Your task to perform on an android device: Show the shopping cart on ebay. Search for macbook pro on ebay, select the first entry, and add it to the cart. Image 0: 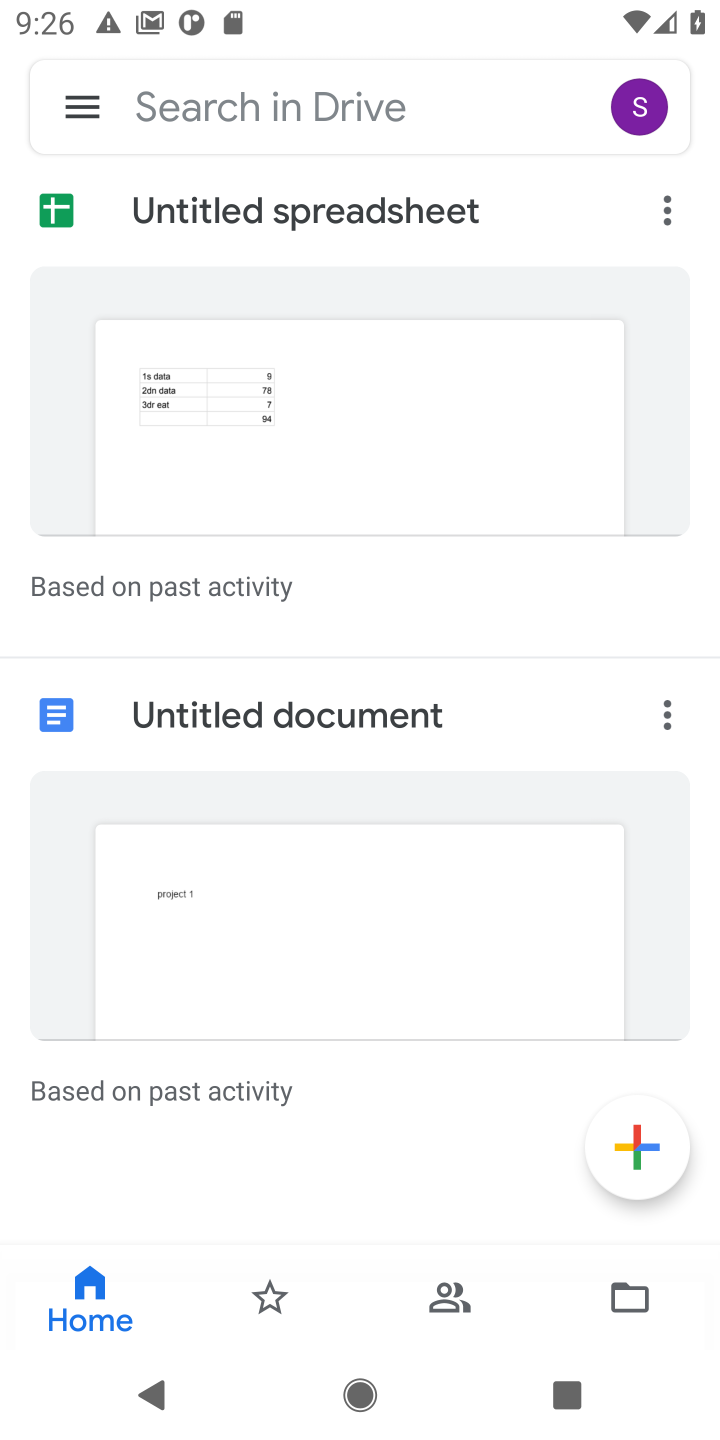
Step 0: press home button
Your task to perform on an android device: Show the shopping cart on ebay. Search for macbook pro on ebay, select the first entry, and add it to the cart. Image 1: 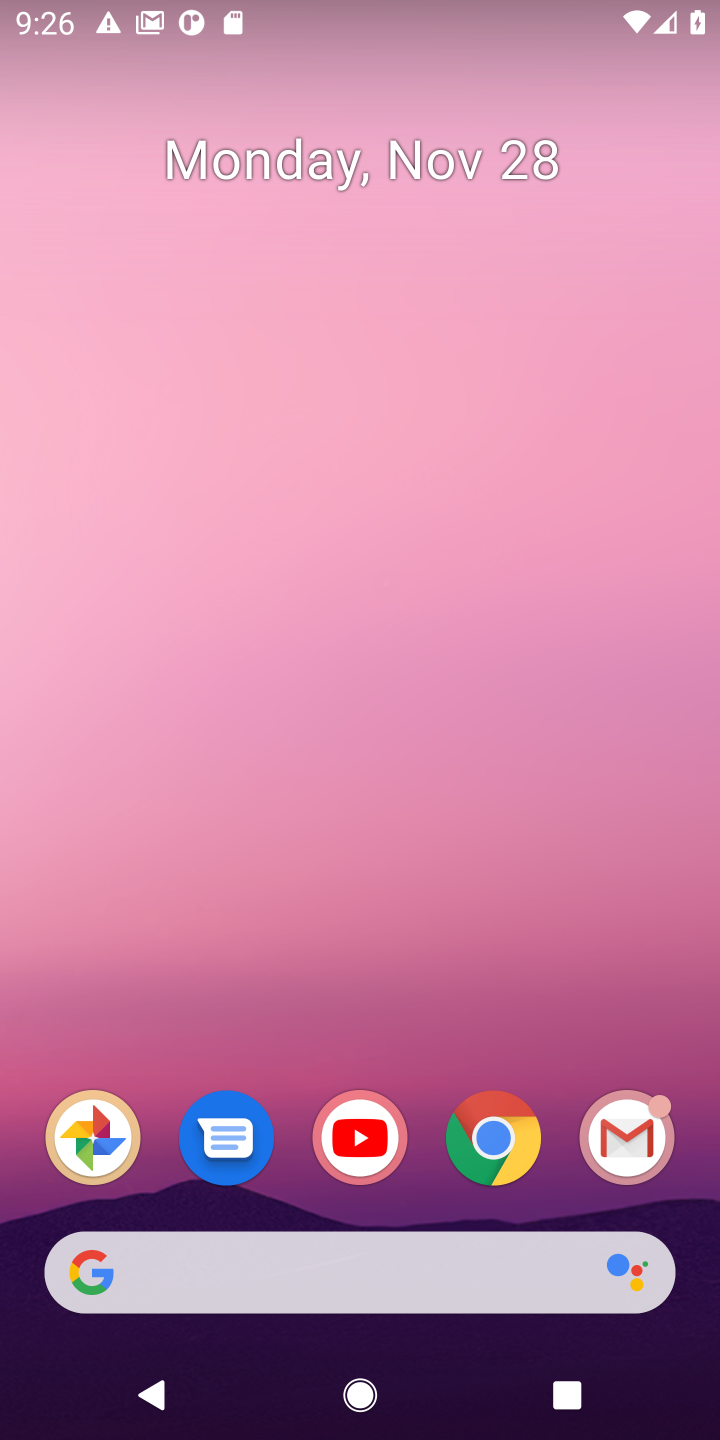
Step 1: click (489, 1139)
Your task to perform on an android device: Show the shopping cart on ebay. Search for macbook pro on ebay, select the first entry, and add it to the cart. Image 2: 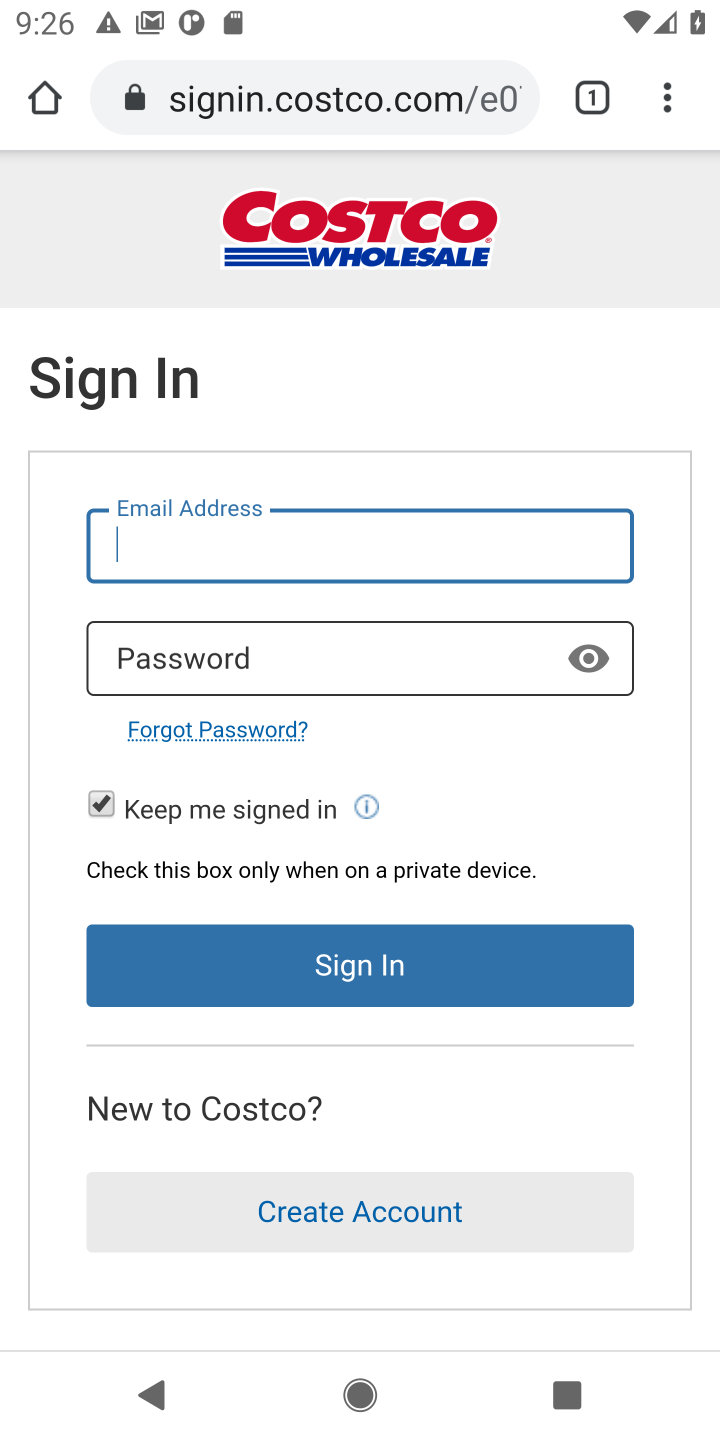
Step 2: click (290, 96)
Your task to perform on an android device: Show the shopping cart on ebay. Search for macbook pro on ebay, select the first entry, and add it to the cart. Image 3: 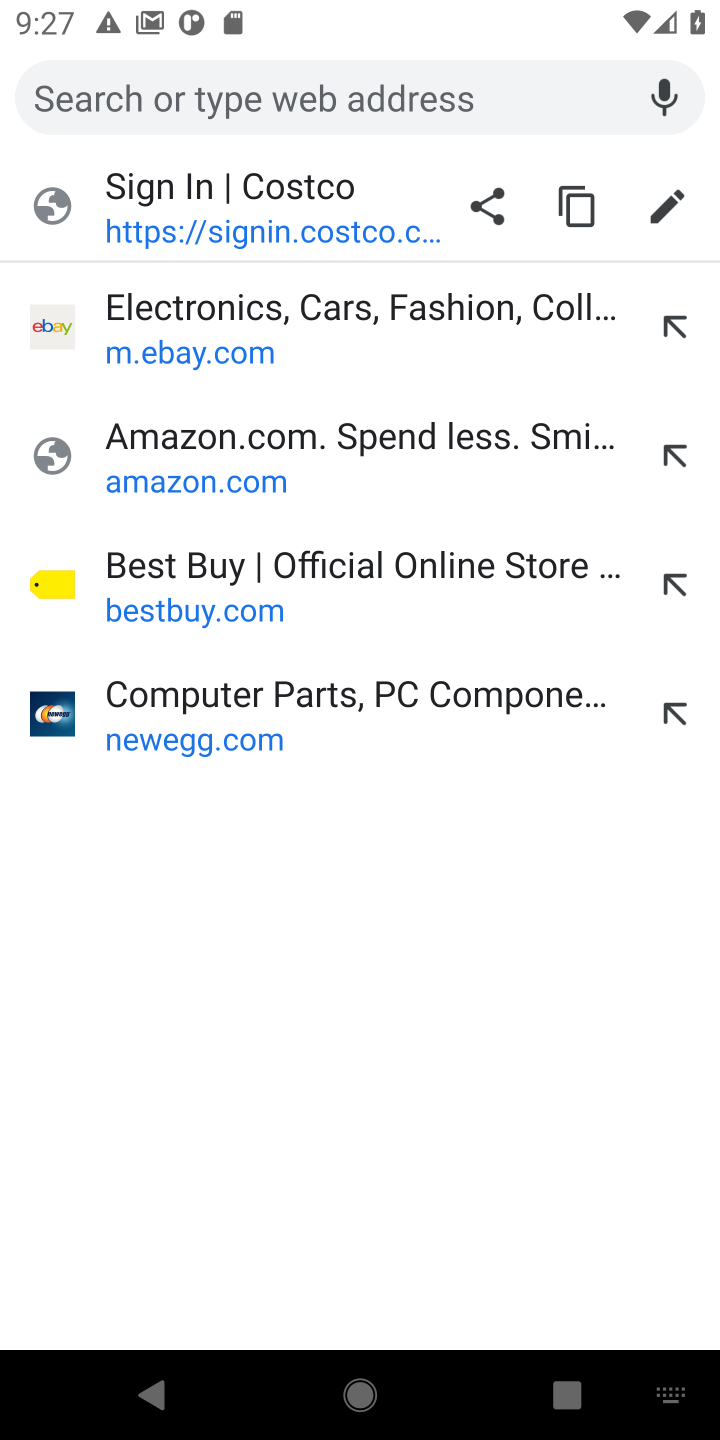
Step 3: click (208, 359)
Your task to perform on an android device: Show the shopping cart on ebay. Search for macbook pro on ebay, select the first entry, and add it to the cart. Image 4: 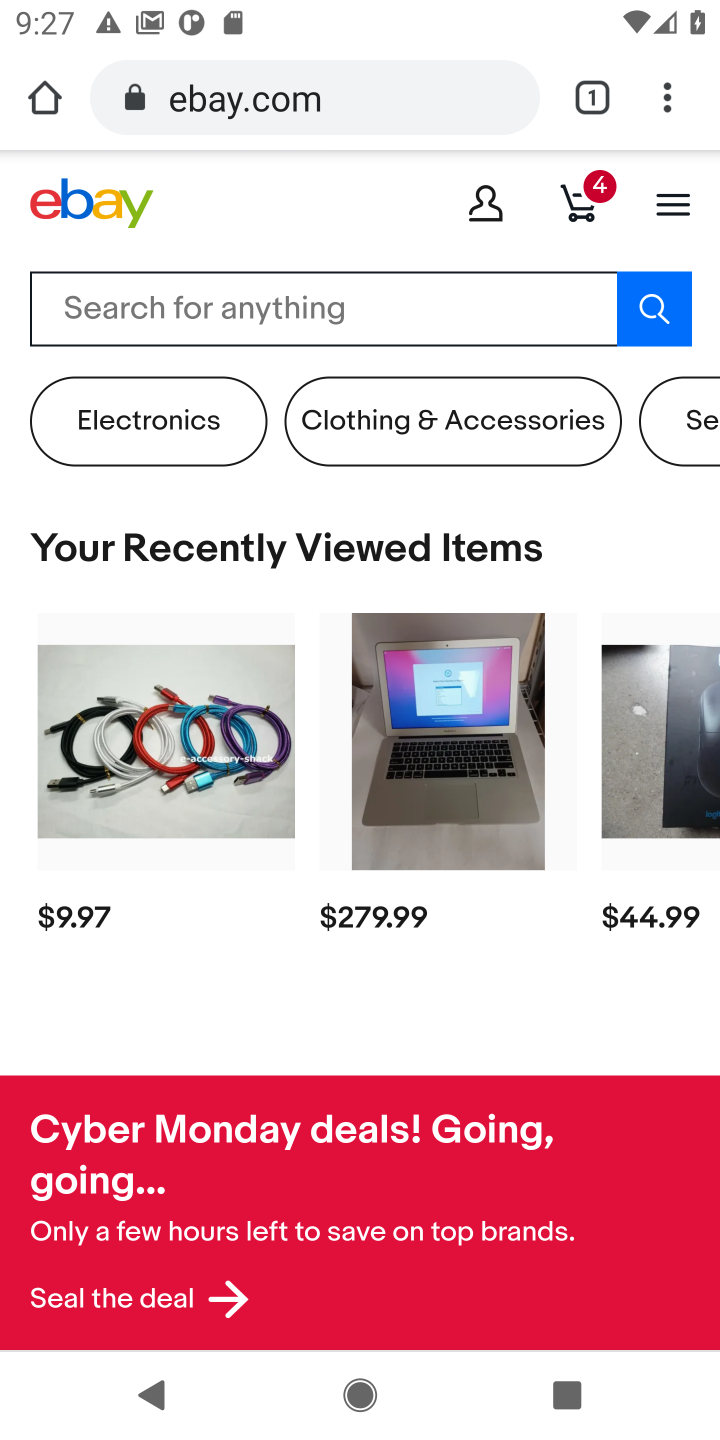
Step 4: click (588, 207)
Your task to perform on an android device: Show the shopping cart on ebay. Search for macbook pro on ebay, select the first entry, and add it to the cart. Image 5: 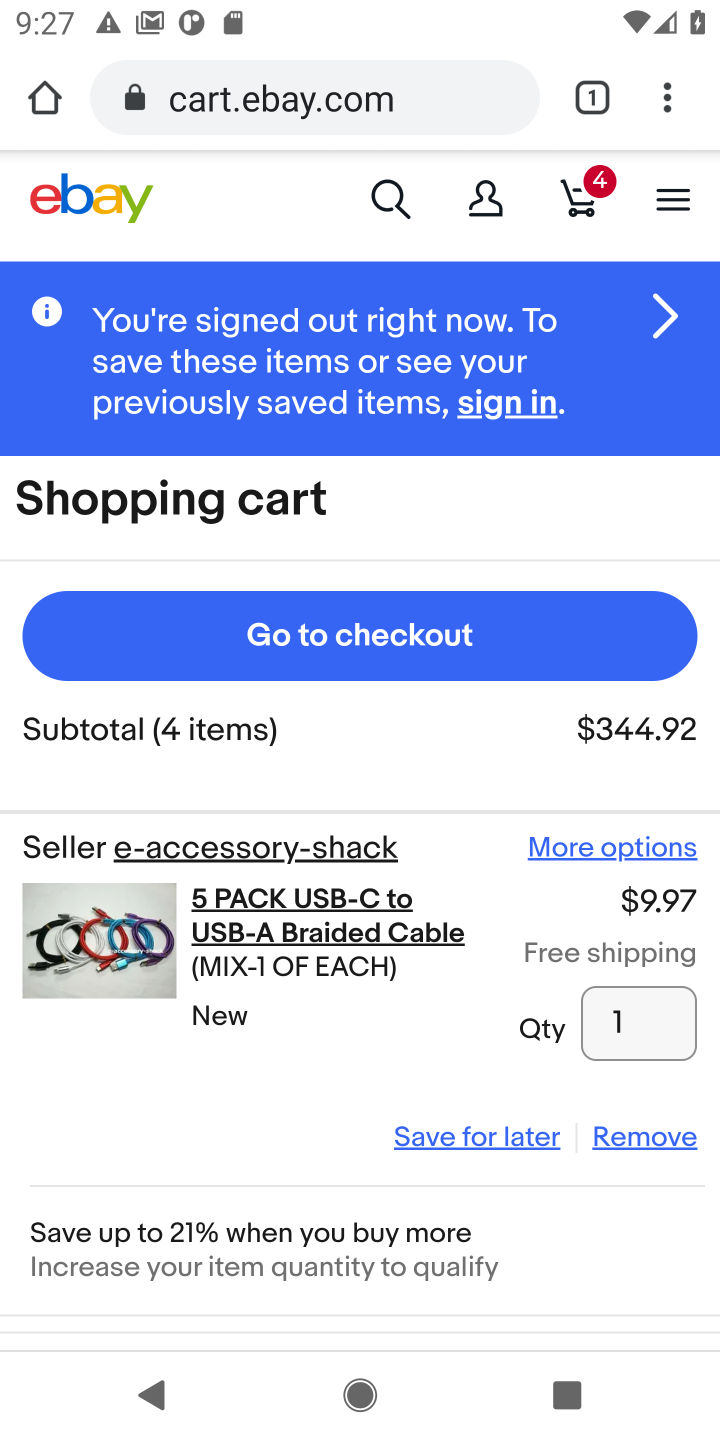
Step 5: click (395, 196)
Your task to perform on an android device: Show the shopping cart on ebay. Search for macbook pro on ebay, select the first entry, and add it to the cart. Image 6: 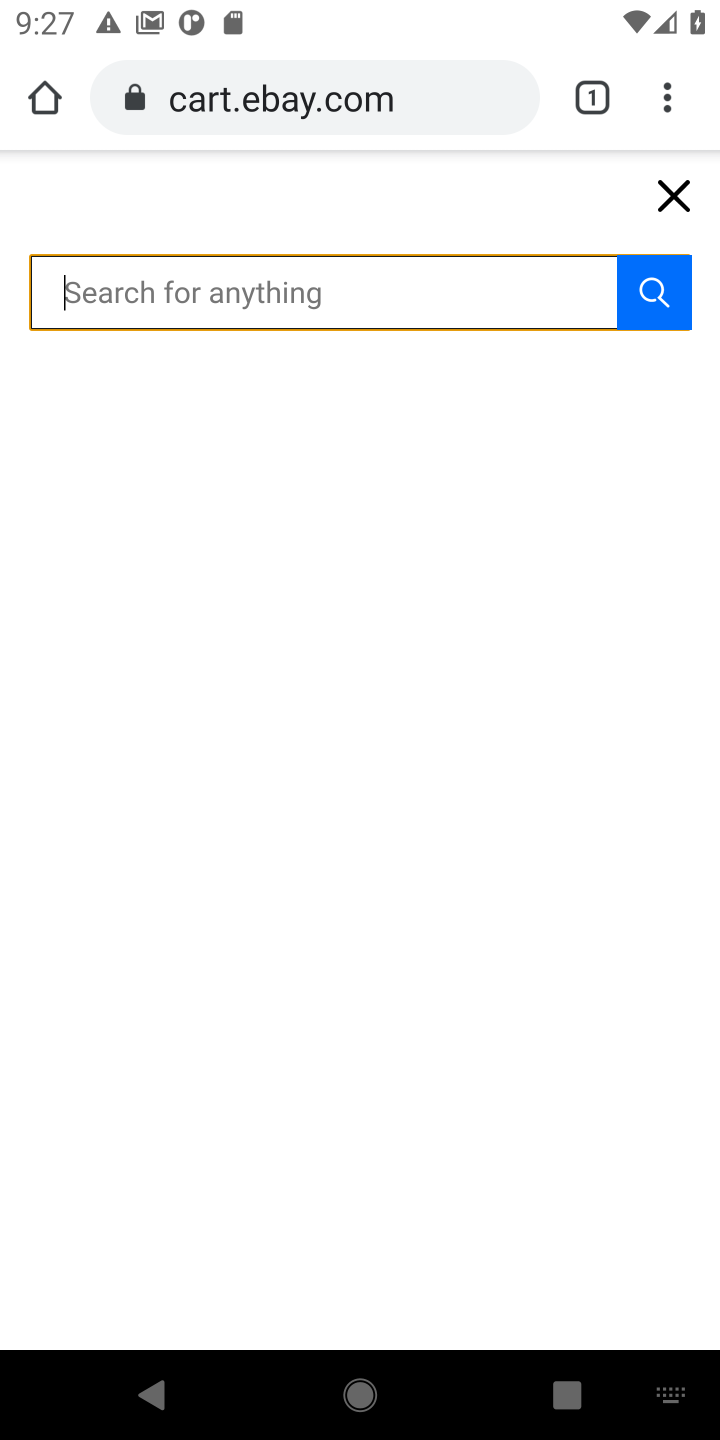
Step 6: type "macbook pro"
Your task to perform on an android device: Show the shopping cart on ebay. Search for macbook pro on ebay, select the first entry, and add it to the cart. Image 7: 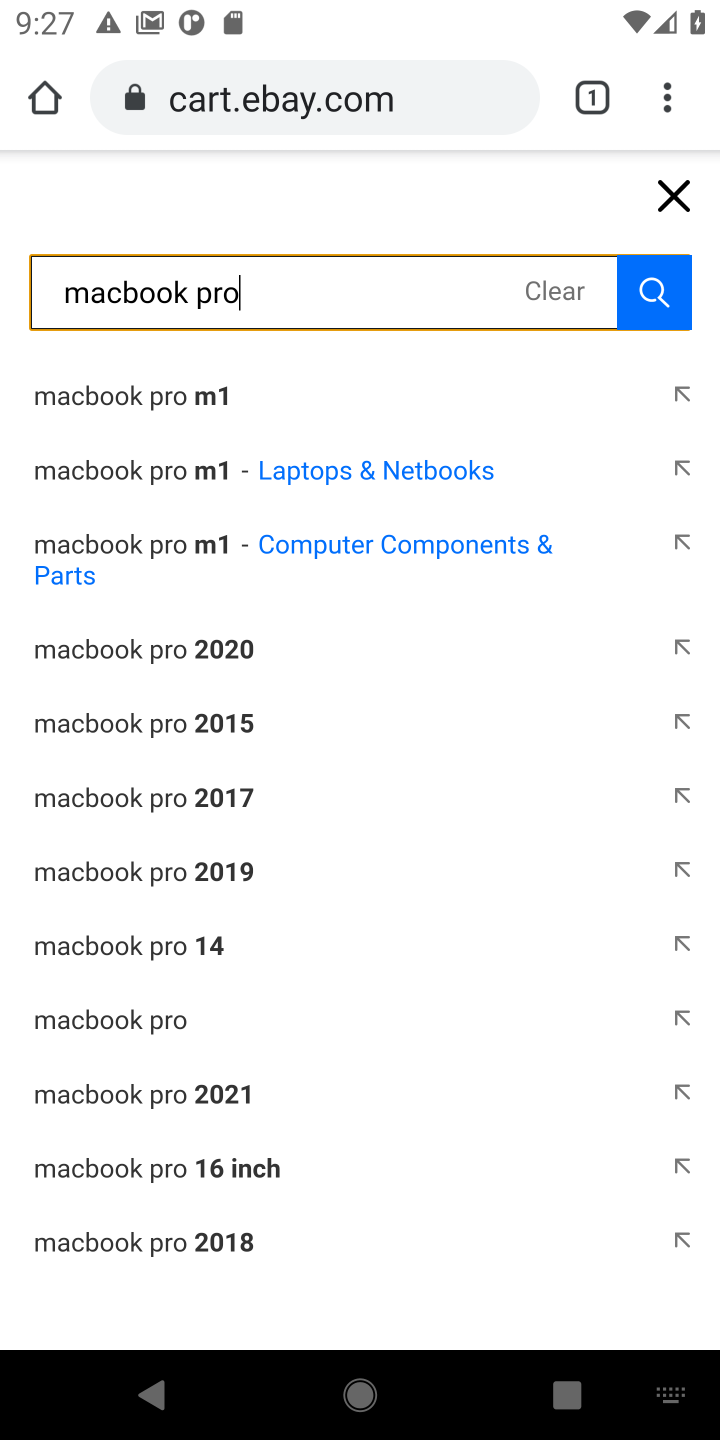
Step 7: click (142, 1028)
Your task to perform on an android device: Show the shopping cart on ebay. Search for macbook pro on ebay, select the first entry, and add it to the cart. Image 8: 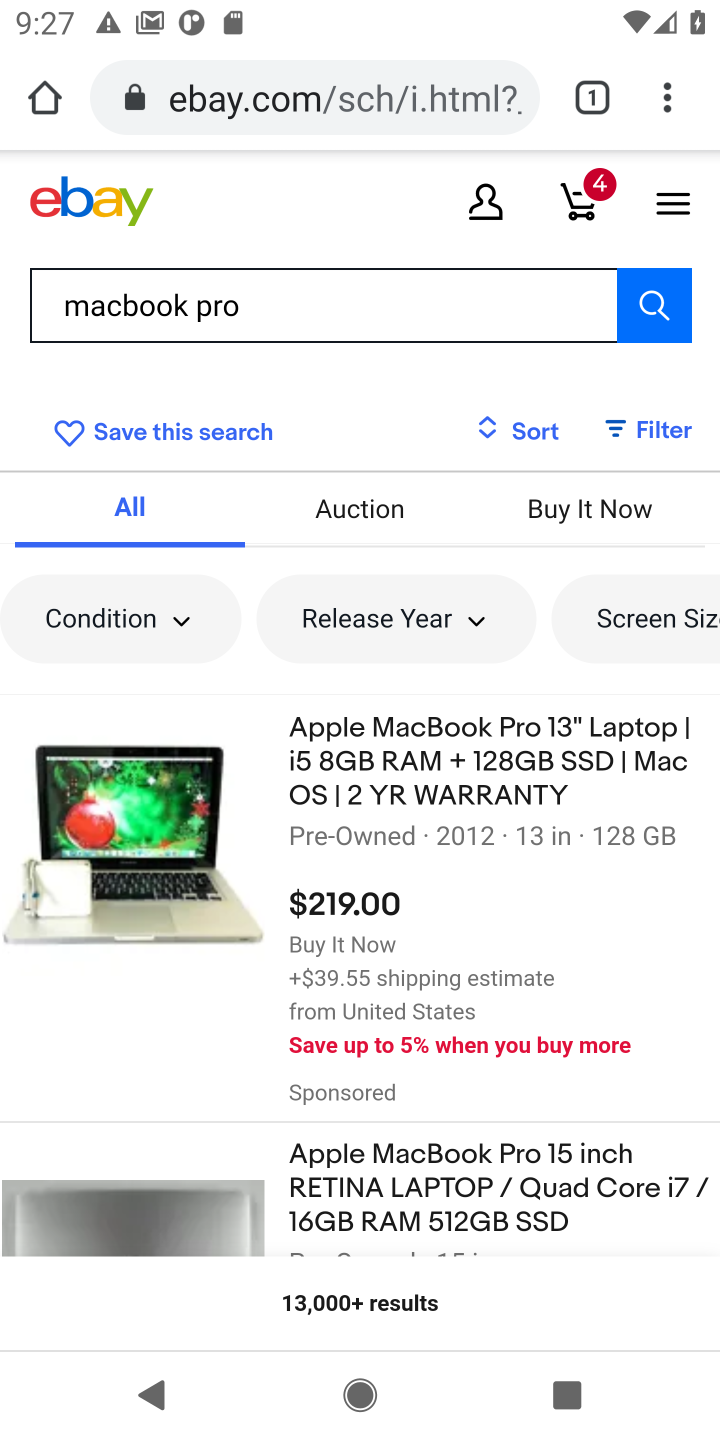
Step 8: click (411, 777)
Your task to perform on an android device: Show the shopping cart on ebay. Search for macbook pro on ebay, select the first entry, and add it to the cart. Image 9: 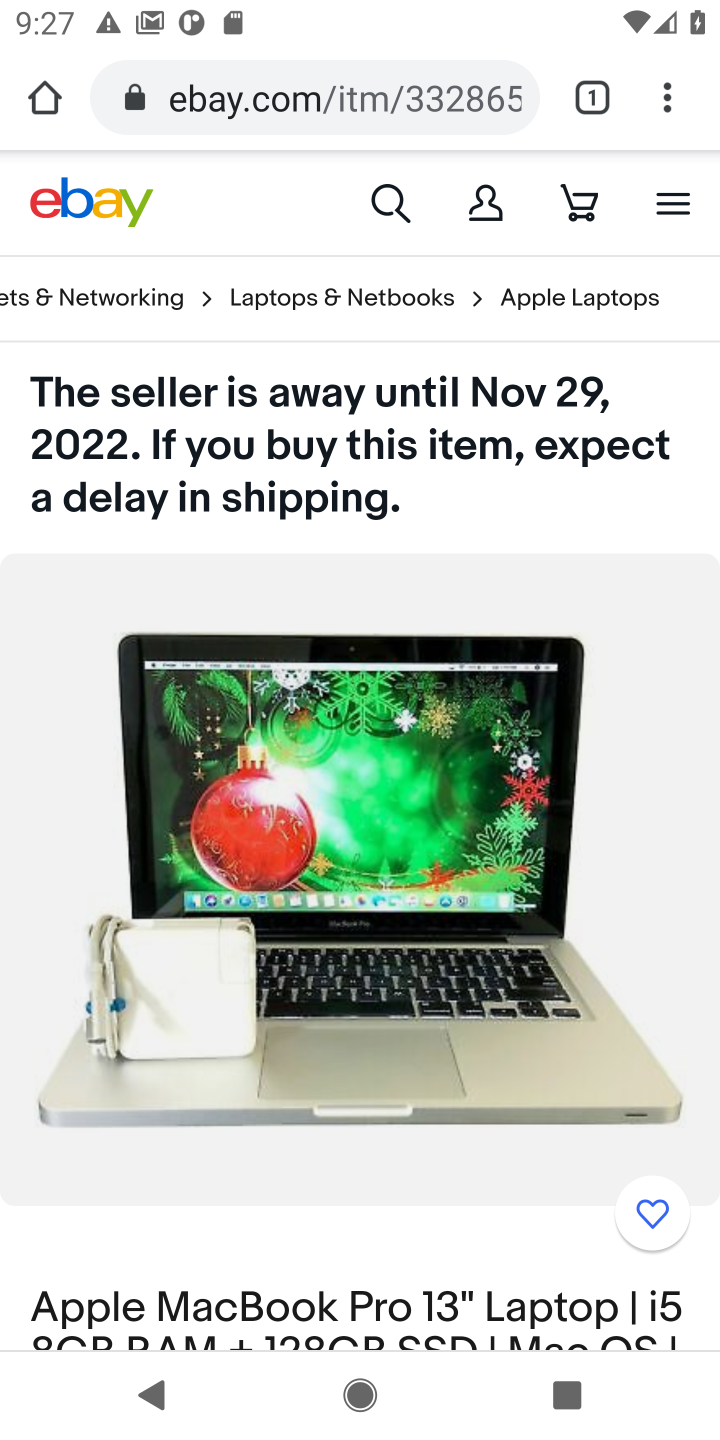
Step 9: drag from (395, 1146) to (355, 644)
Your task to perform on an android device: Show the shopping cart on ebay. Search for macbook pro on ebay, select the first entry, and add it to the cart. Image 10: 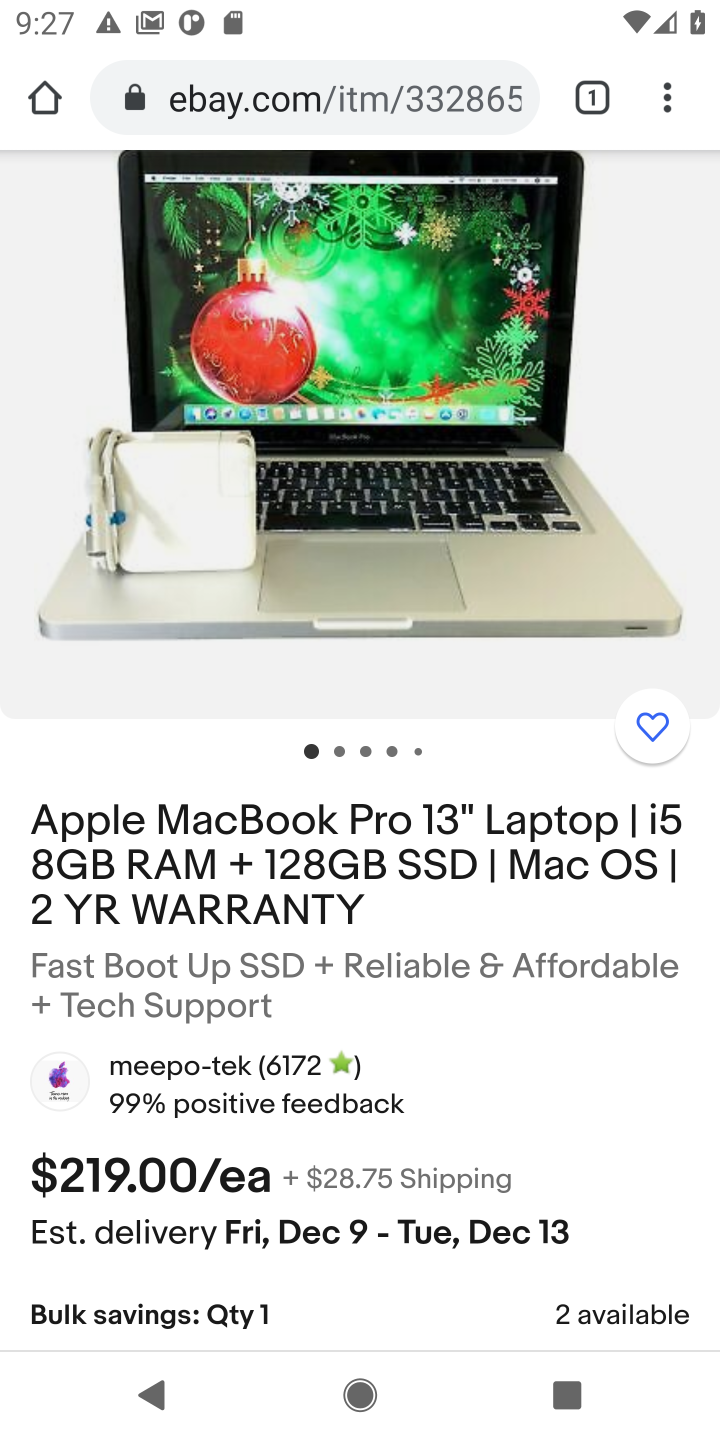
Step 10: drag from (383, 1045) to (371, 644)
Your task to perform on an android device: Show the shopping cart on ebay. Search for macbook pro on ebay, select the first entry, and add it to the cart. Image 11: 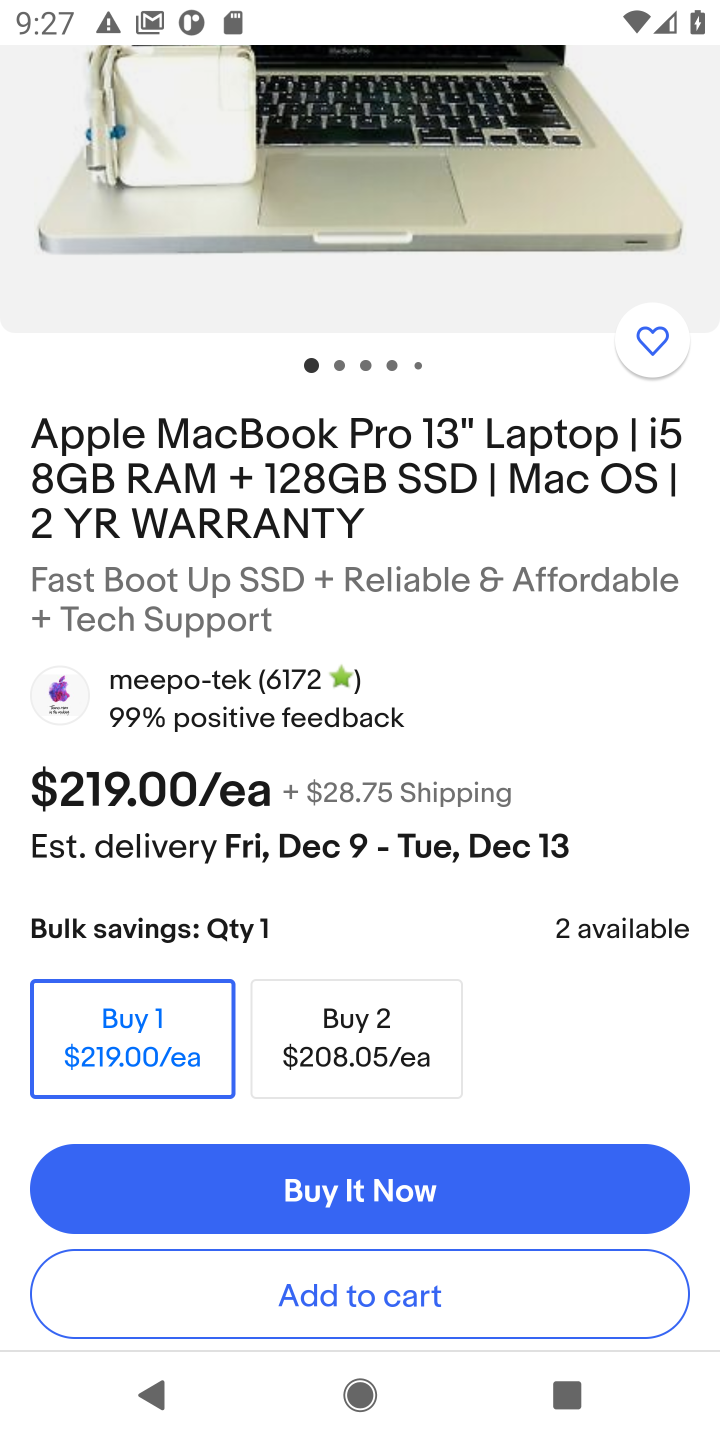
Step 11: drag from (498, 1079) to (483, 699)
Your task to perform on an android device: Show the shopping cart on ebay. Search for macbook pro on ebay, select the first entry, and add it to the cart. Image 12: 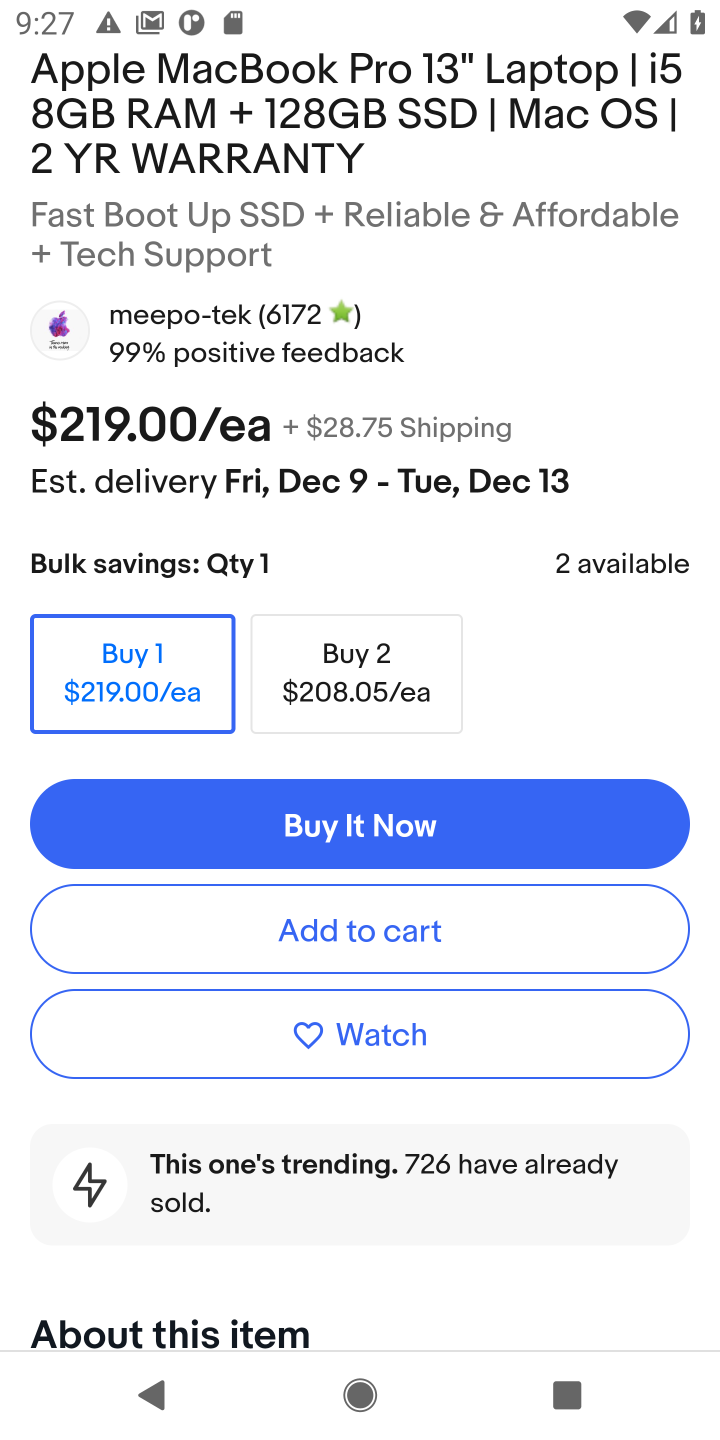
Step 12: click (353, 922)
Your task to perform on an android device: Show the shopping cart on ebay. Search for macbook pro on ebay, select the first entry, and add it to the cart. Image 13: 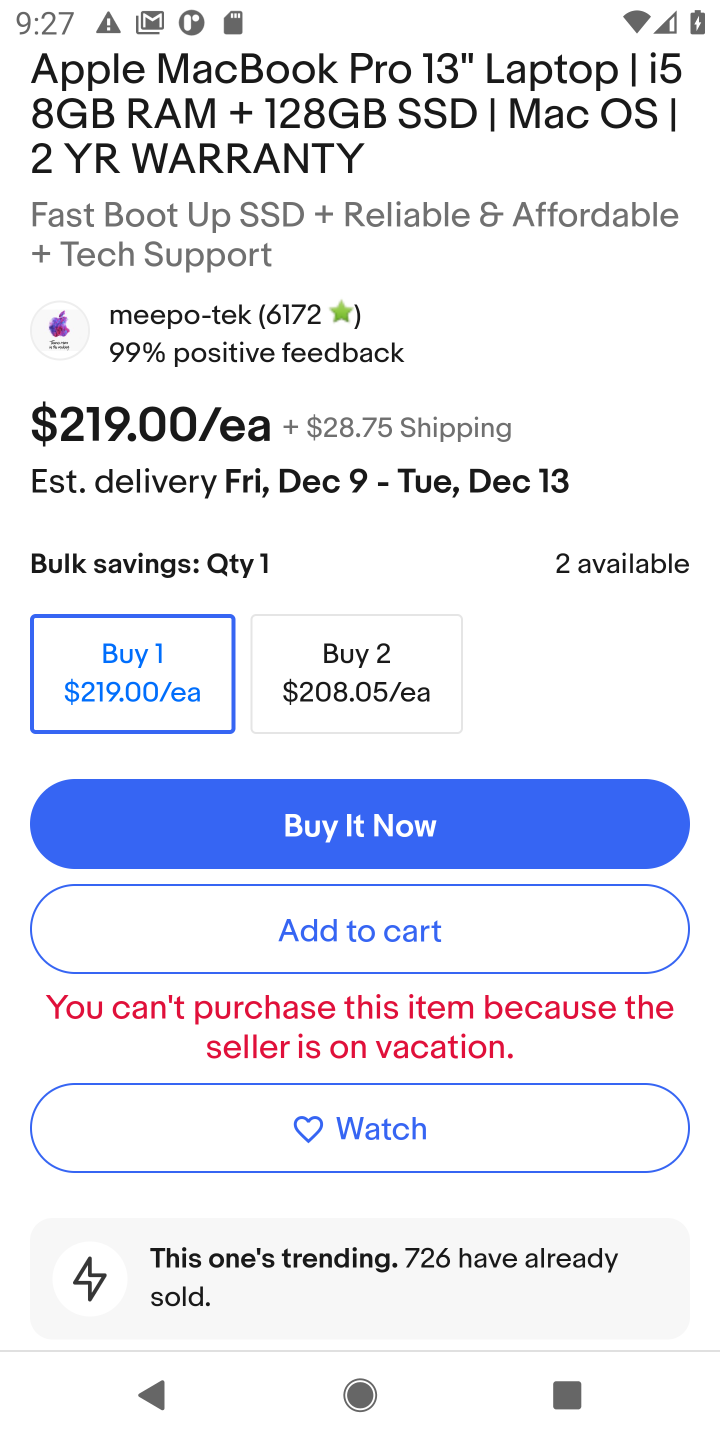
Step 13: task complete